Your task to perform on an android device: Open sound settings Image 0: 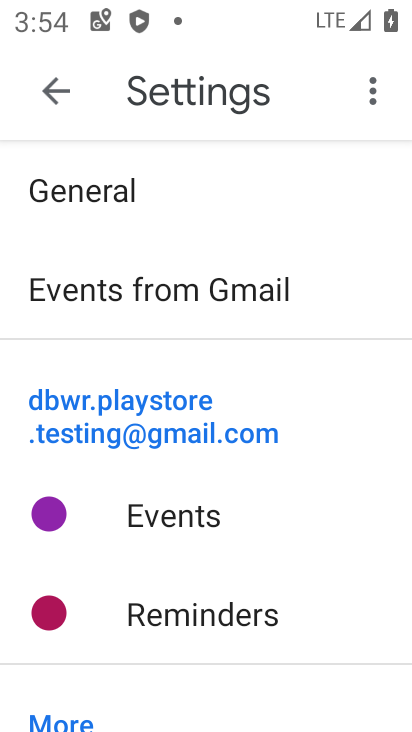
Step 0: press back button
Your task to perform on an android device: Open sound settings Image 1: 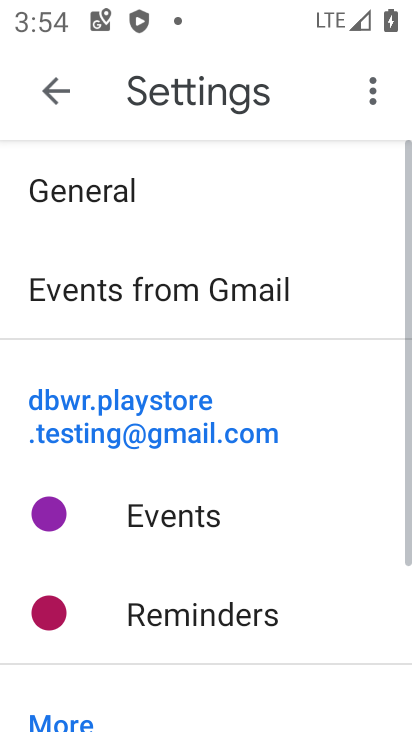
Step 1: press back button
Your task to perform on an android device: Open sound settings Image 2: 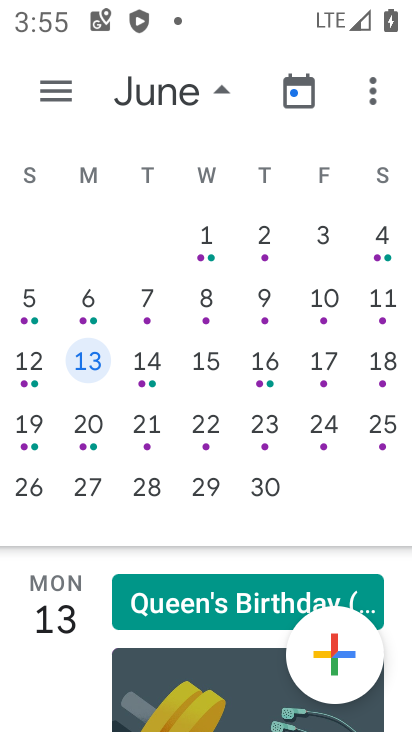
Step 2: press back button
Your task to perform on an android device: Open sound settings Image 3: 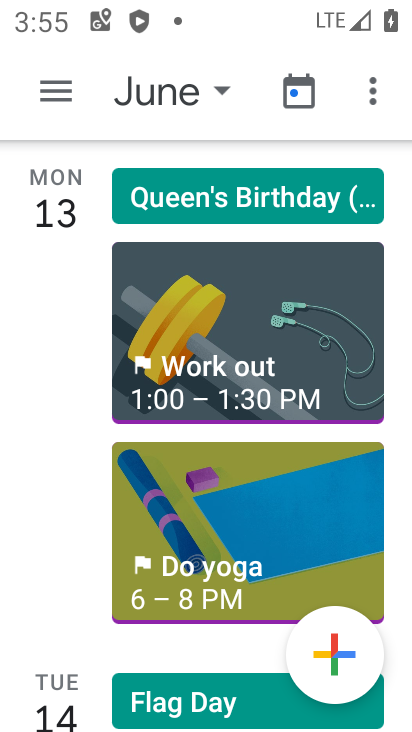
Step 3: press back button
Your task to perform on an android device: Open sound settings Image 4: 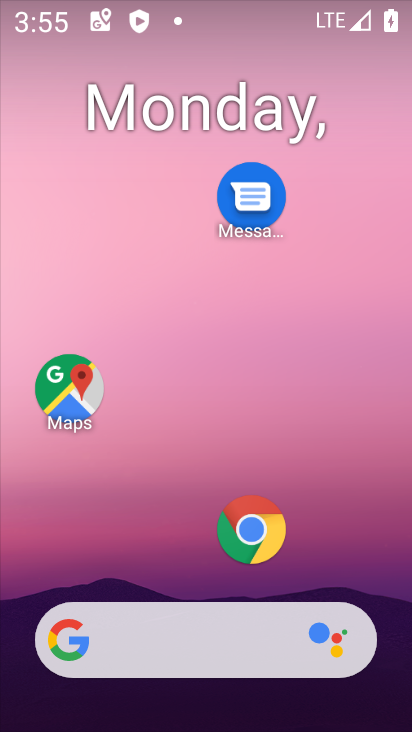
Step 4: drag from (183, 521) to (170, 72)
Your task to perform on an android device: Open sound settings Image 5: 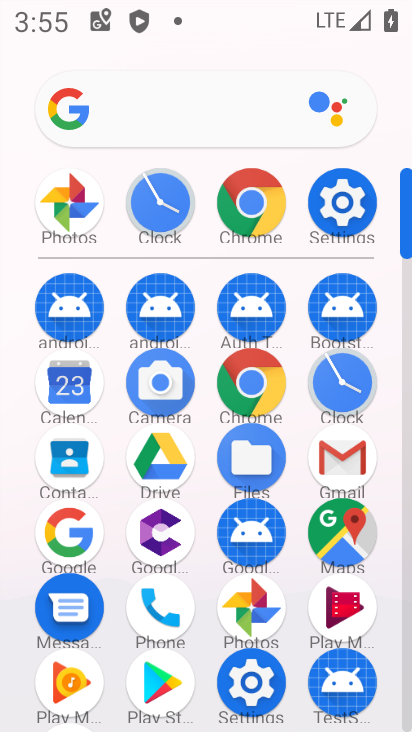
Step 5: click (337, 185)
Your task to perform on an android device: Open sound settings Image 6: 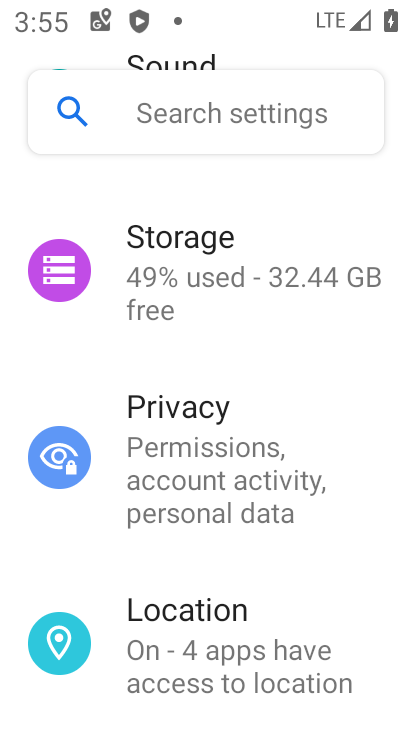
Step 6: drag from (245, 208) to (246, 731)
Your task to perform on an android device: Open sound settings Image 7: 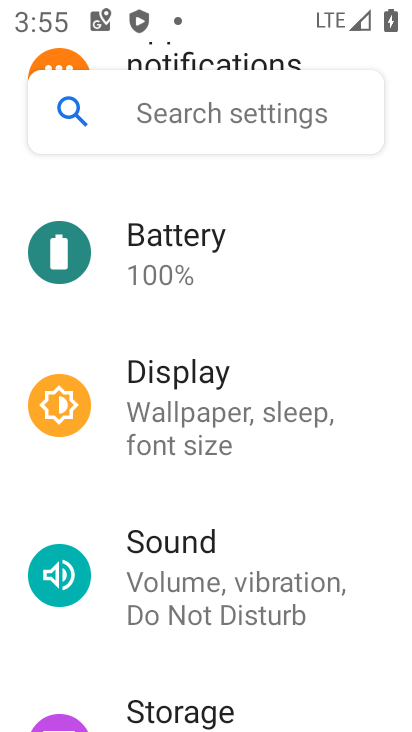
Step 7: click (240, 599)
Your task to perform on an android device: Open sound settings Image 8: 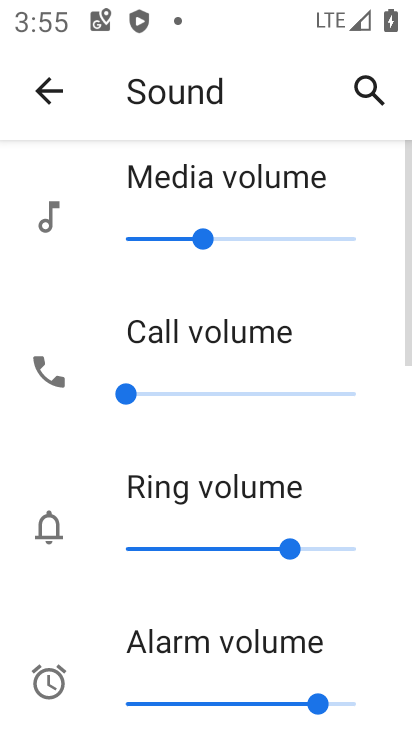
Step 8: task complete